Your task to perform on an android device: Is it going to rain this weekend? Image 0: 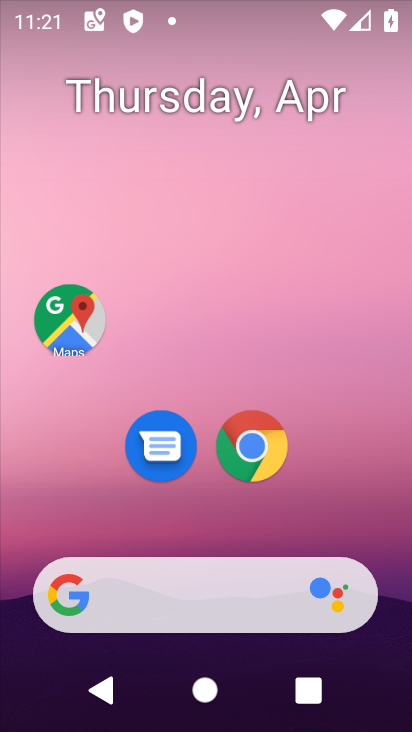
Step 0: click (250, 450)
Your task to perform on an android device: Is it going to rain this weekend? Image 1: 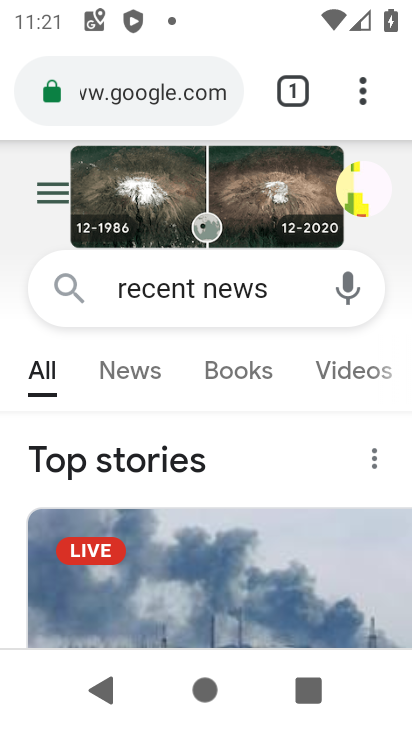
Step 1: click (157, 85)
Your task to perform on an android device: Is it going to rain this weekend? Image 2: 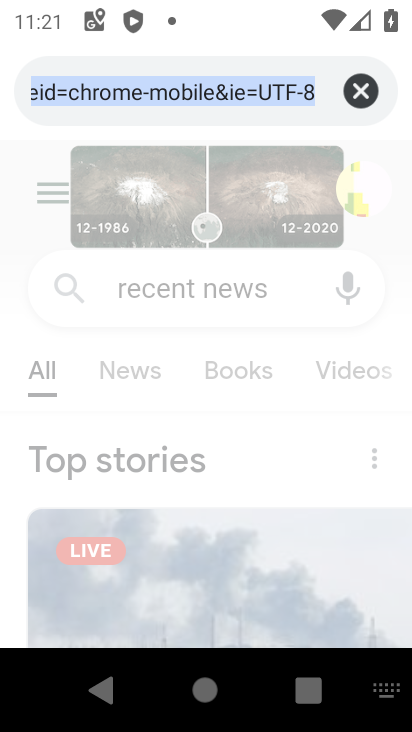
Step 2: type "Is it going to rain this weekend?"
Your task to perform on an android device: Is it going to rain this weekend? Image 3: 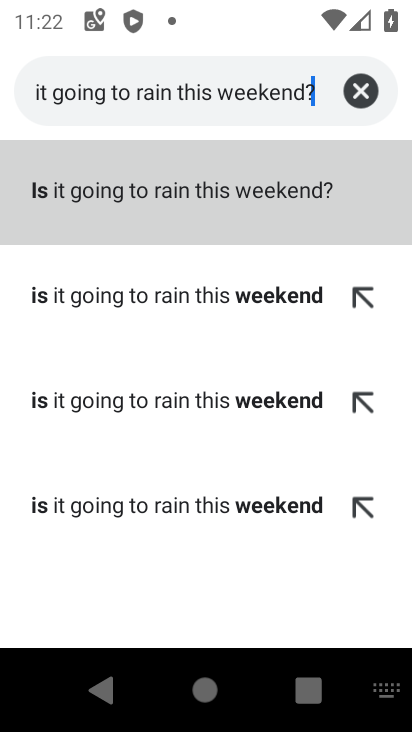
Step 3: click (242, 219)
Your task to perform on an android device: Is it going to rain this weekend? Image 4: 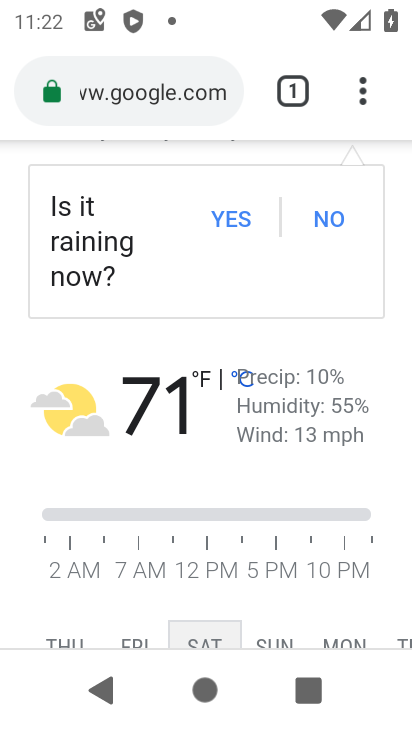
Step 4: task complete